Your task to perform on an android device: Check the news Image 0: 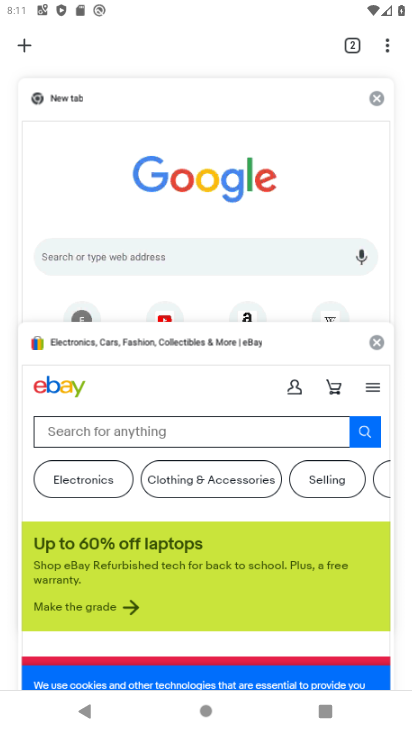
Step 0: press home button
Your task to perform on an android device: Check the news Image 1: 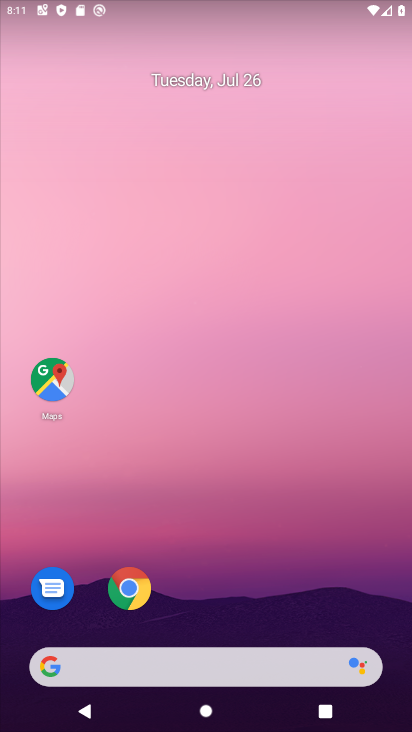
Step 1: click (155, 672)
Your task to perform on an android device: Check the news Image 2: 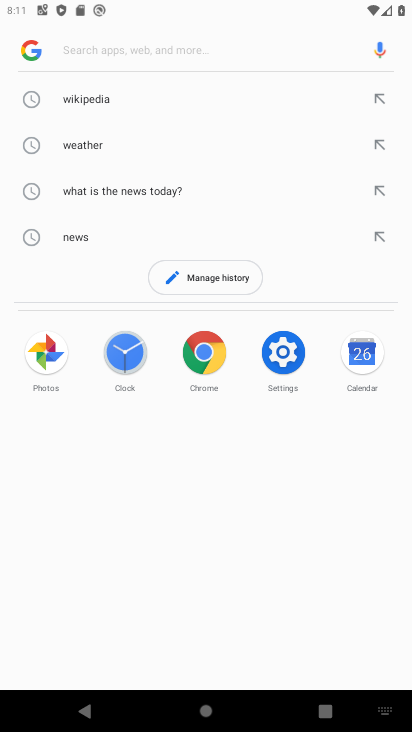
Step 2: type "Check the news"
Your task to perform on an android device: Check the news Image 3: 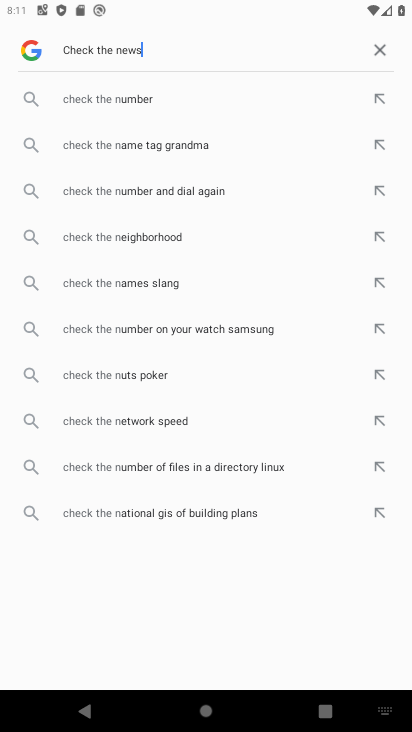
Step 3: press enter
Your task to perform on an android device: Check the news Image 4: 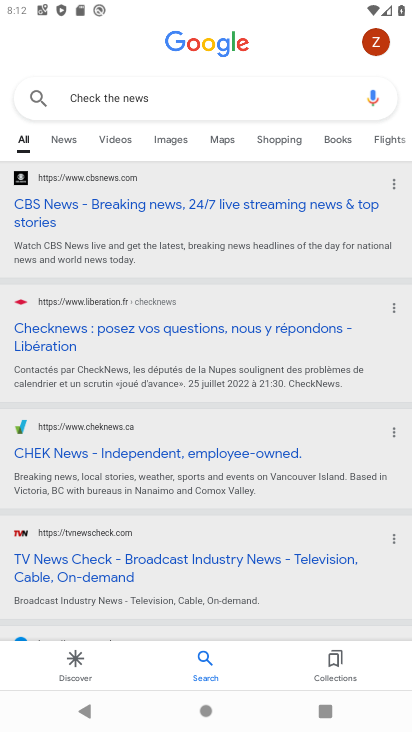
Step 4: task complete